Your task to perform on an android device: Open settings Image 0: 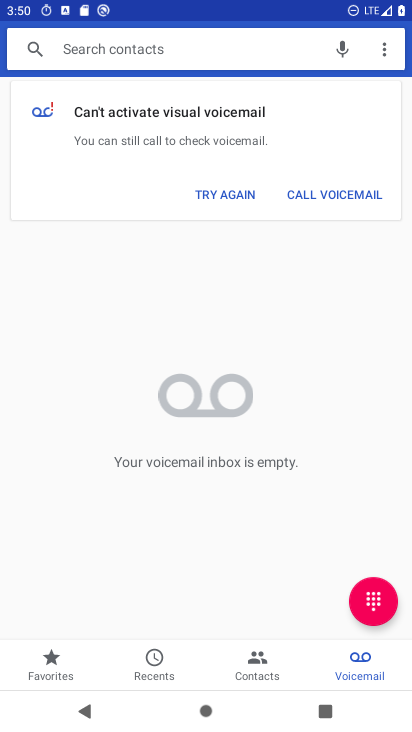
Step 0: press home button
Your task to perform on an android device: Open settings Image 1: 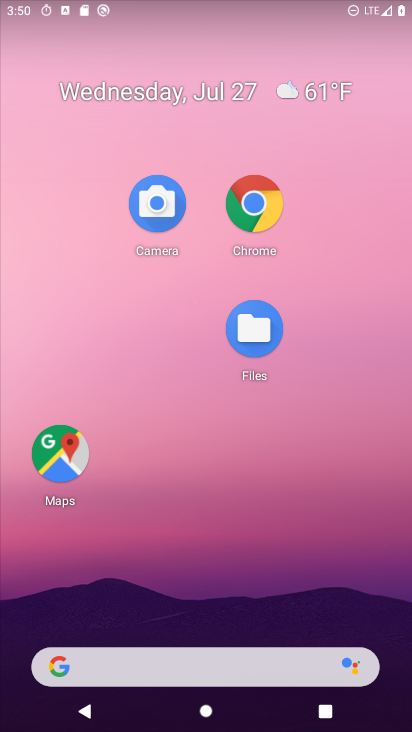
Step 1: drag from (217, 612) to (217, 128)
Your task to perform on an android device: Open settings Image 2: 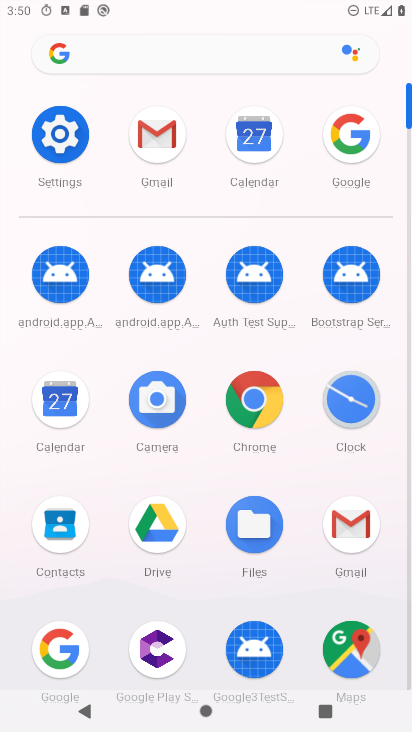
Step 2: click (43, 155)
Your task to perform on an android device: Open settings Image 3: 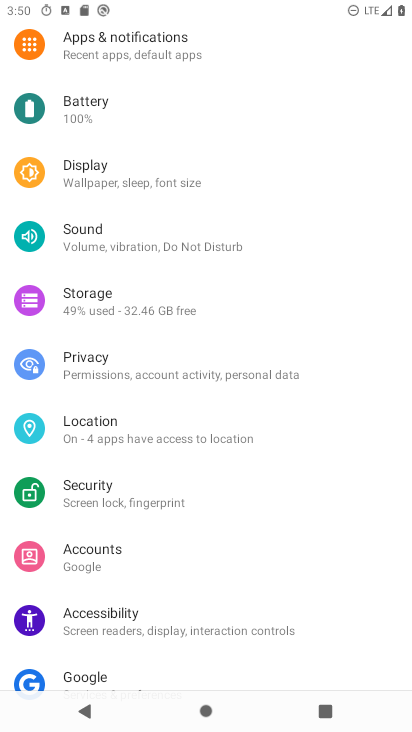
Step 3: task complete